Your task to perform on an android device: Open the stopwatch Image 0: 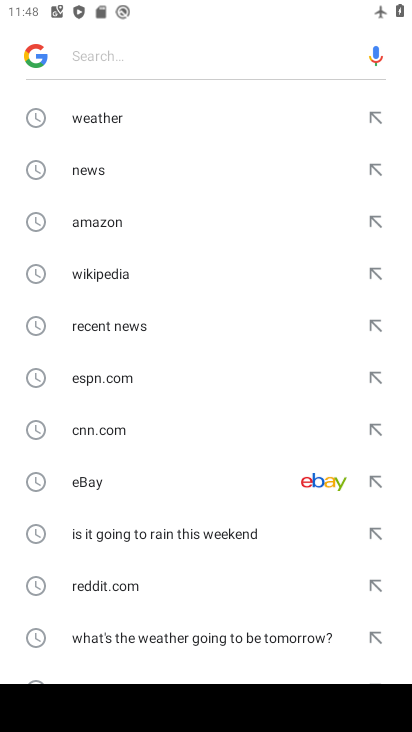
Step 0: press home button
Your task to perform on an android device: Open the stopwatch Image 1: 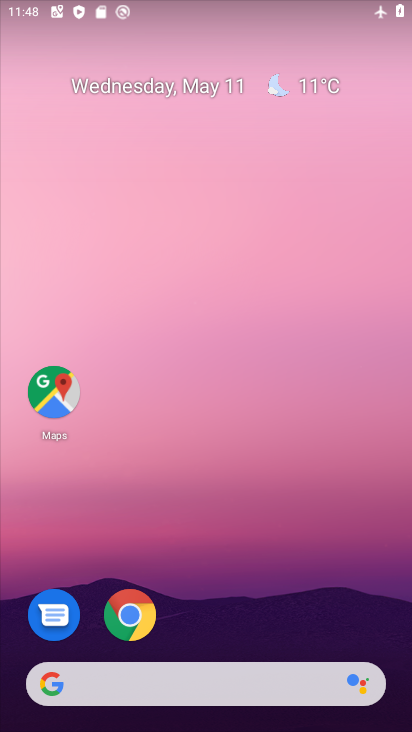
Step 1: drag from (220, 578) to (285, 88)
Your task to perform on an android device: Open the stopwatch Image 2: 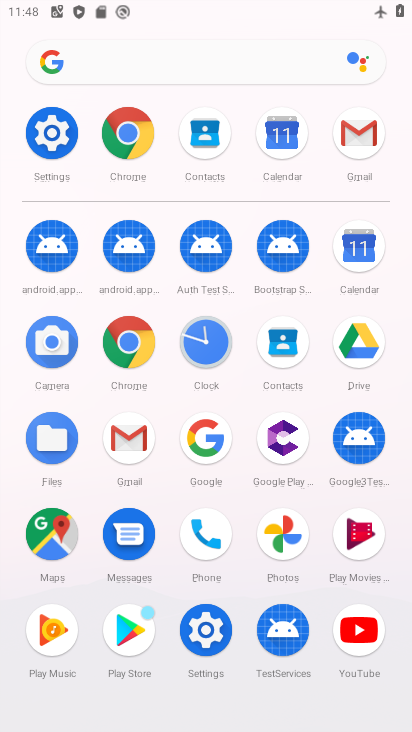
Step 2: click (213, 346)
Your task to perform on an android device: Open the stopwatch Image 3: 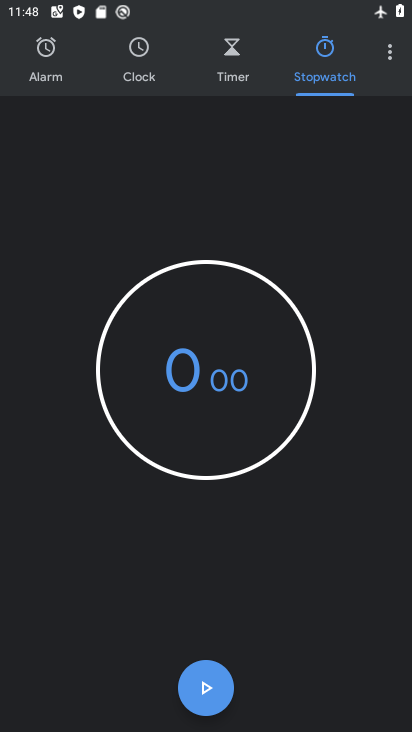
Step 3: task complete